Your task to perform on an android device: turn on improve location accuracy Image 0: 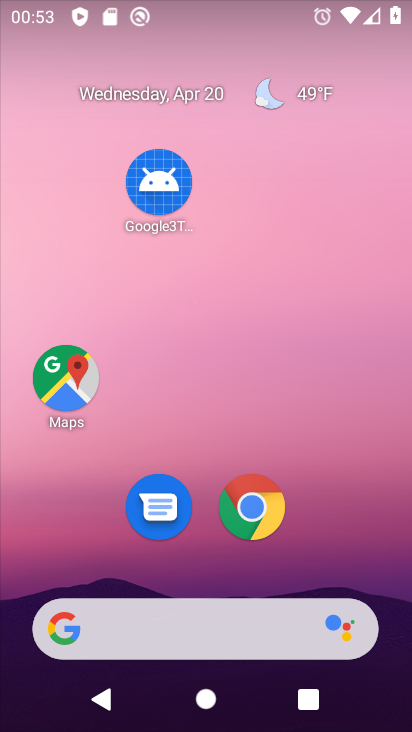
Step 0: drag from (212, 570) to (285, 41)
Your task to perform on an android device: turn on improve location accuracy Image 1: 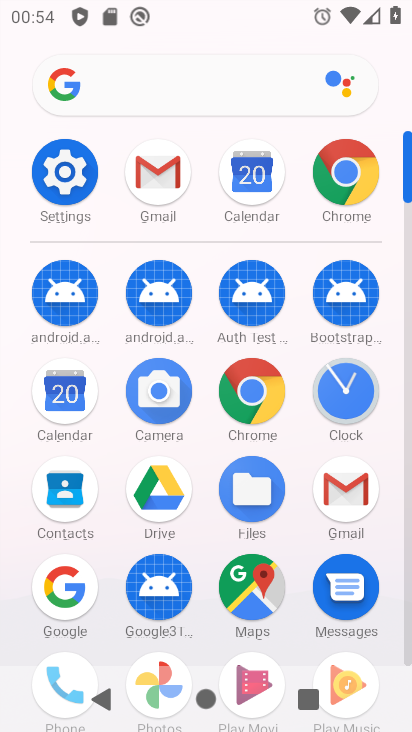
Step 1: click (64, 171)
Your task to perform on an android device: turn on improve location accuracy Image 2: 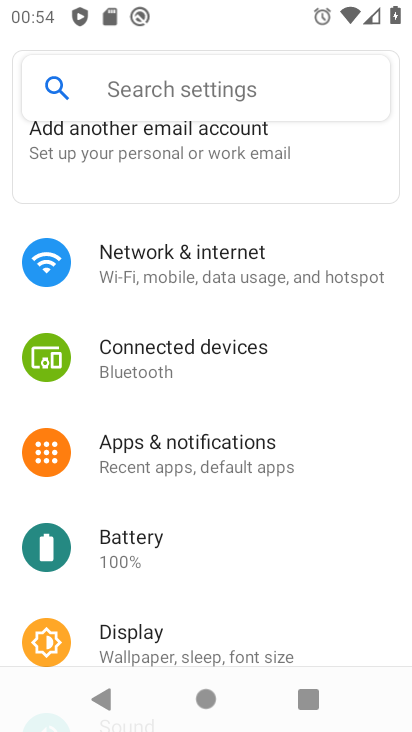
Step 2: drag from (191, 557) to (195, 165)
Your task to perform on an android device: turn on improve location accuracy Image 3: 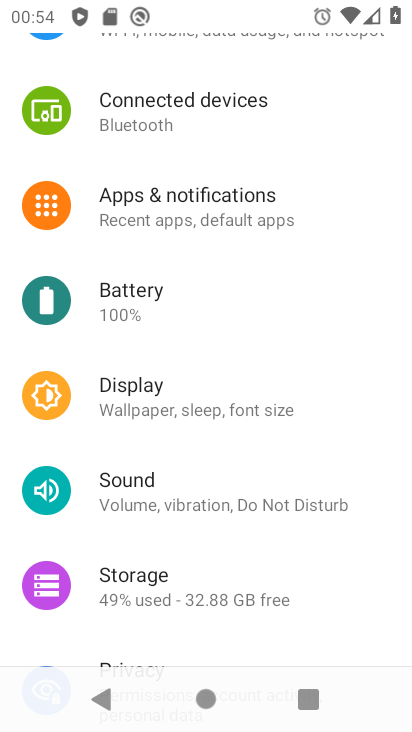
Step 3: drag from (179, 548) to (165, 264)
Your task to perform on an android device: turn on improve location accuracy Image 4: 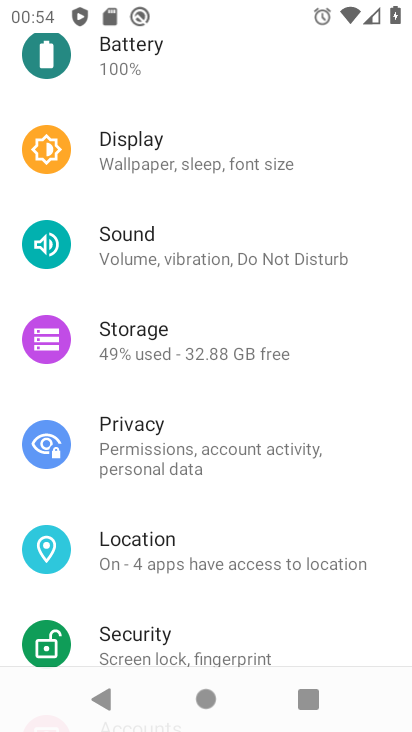
Step 4: click (116, 542)
Your task to perform on an android device: turn on improve location accuracy Image 5: 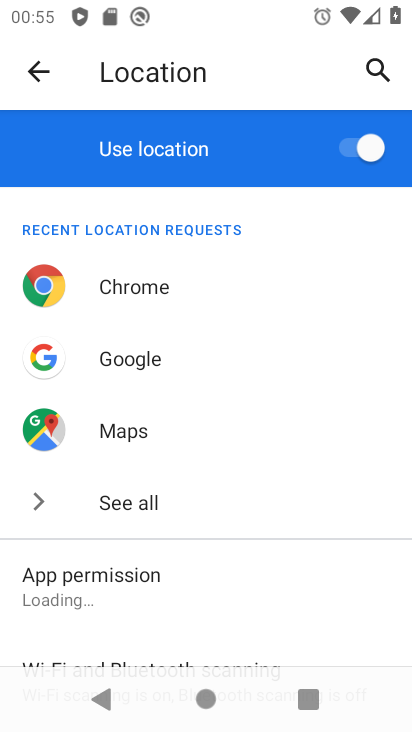
Step 5: drag from (192, 572) to (193, 250)
Your task to perform on an android device: turn on improve location accuracy Image 6: 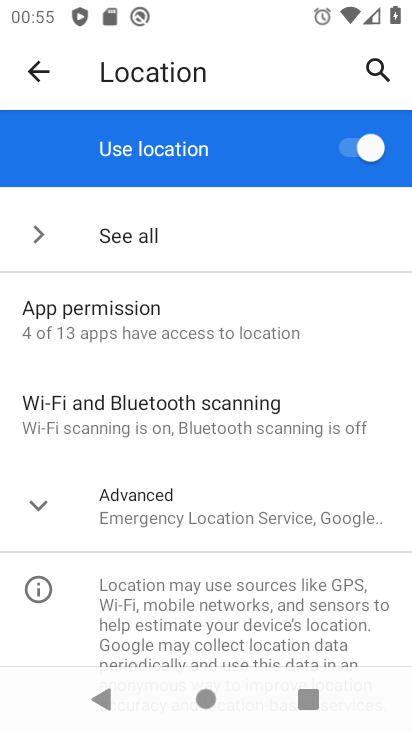
Step 6: drag from (190, 490) to (207, 256)
Your task to perform on an android device: turn on improve location accuracy Image 7: 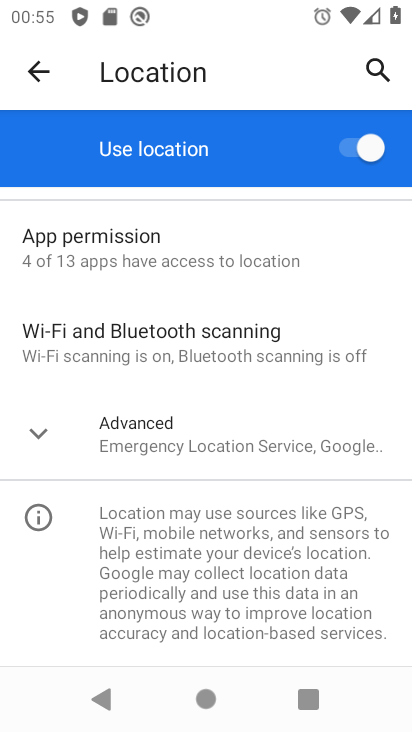
Step 7: click (116, 435)
Your task to perform on an android device: turn on improve location accuracy Image 8: 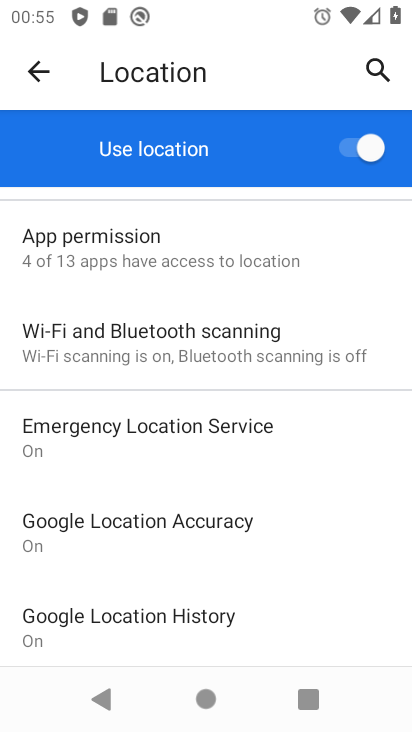
Step 8: click (128, 529)
Your task to perform on an android device: turn on improve location accuracy Image 9: 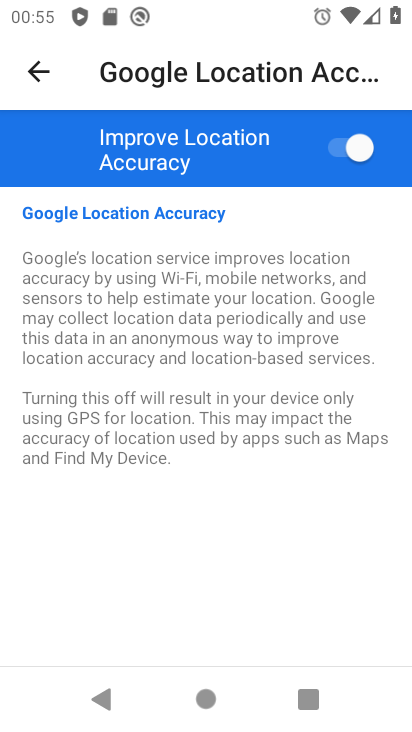
Step 9: task complete